Your task to perform on an android device: change keyboard looks Image 0: 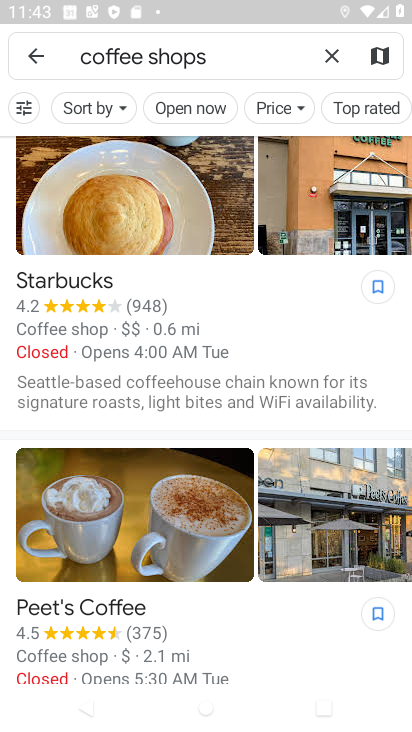
Step 0: press home button
Your task to perform on an android device: change keyboard looks Image 1: 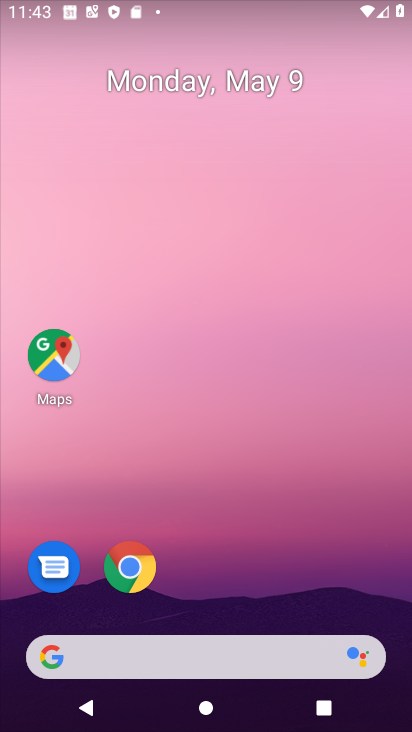
Step 1: drag from (180, 664) to (224, 80)
Your task to perform on an android device: change keyboard looks Image 2: 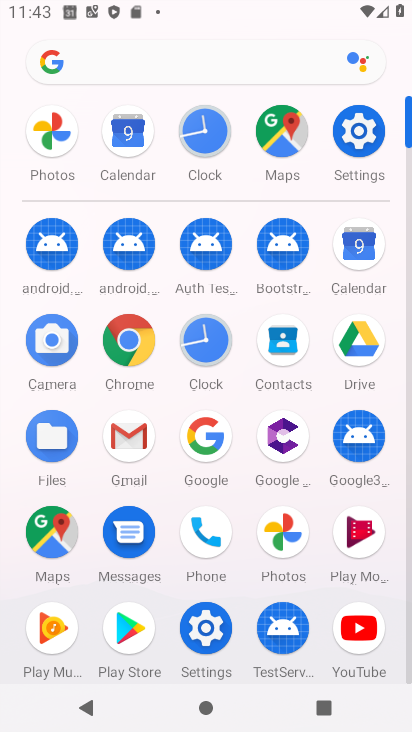
Step 2: click (370, 115)
Your task to perform on an android device: change keyboard looks Image 3: 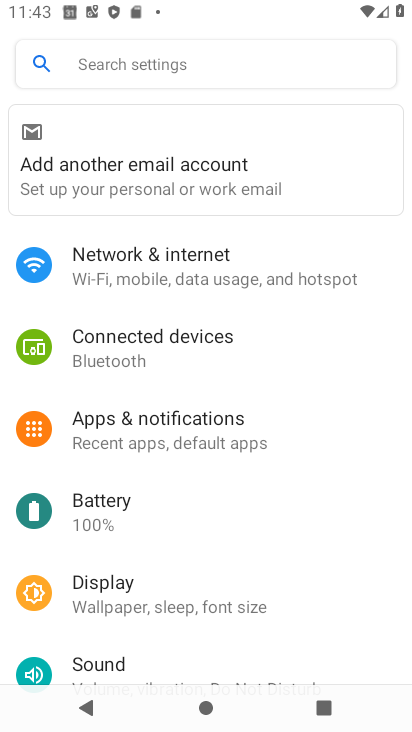
Step 3: drag from (216, 534) to (259, 116)
Your task to perform on an android device: change keyboard looks Image 4: 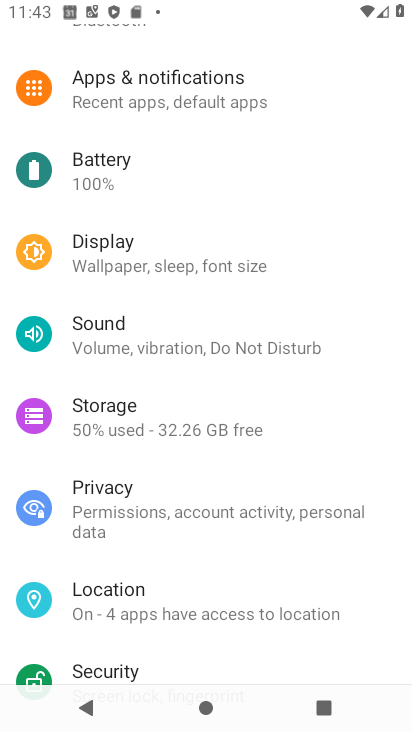
Step 4: drag from (246, 585) to (236, 32)
Your task to perform on an android device: change keyboard looks Image 5: 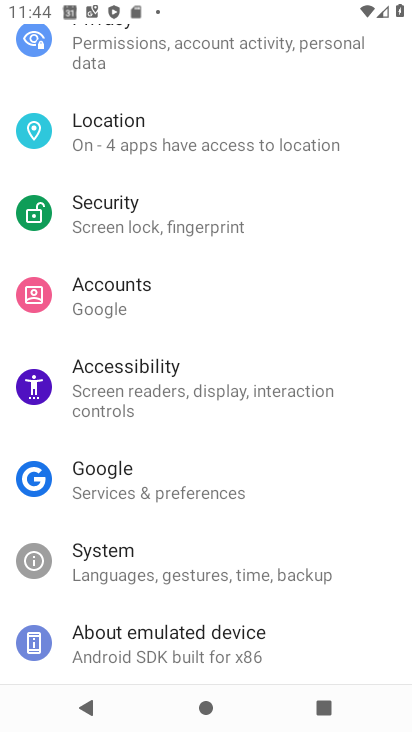
Step 5: drag from (198, 589) to (196, 263)
Your task to perform on an android device: change keyboard looks Image 6: 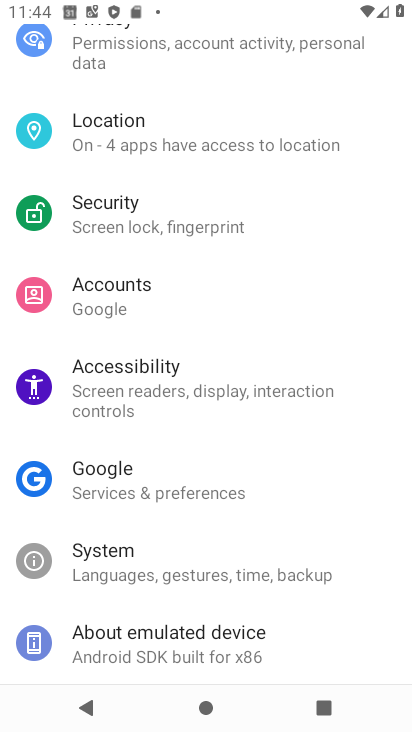
Step 6: click (146, 541)
Your task to perform on an android device: change keyboard looks Image 7: 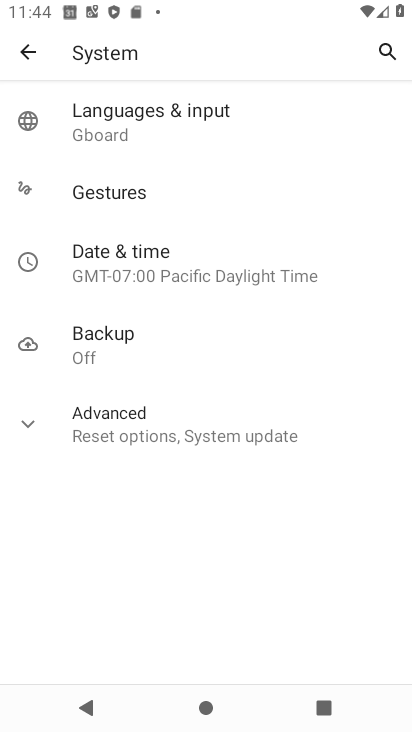
Step 7: click (113, 120)
Your task to perform on an android device: change keyboard looks Image 8: 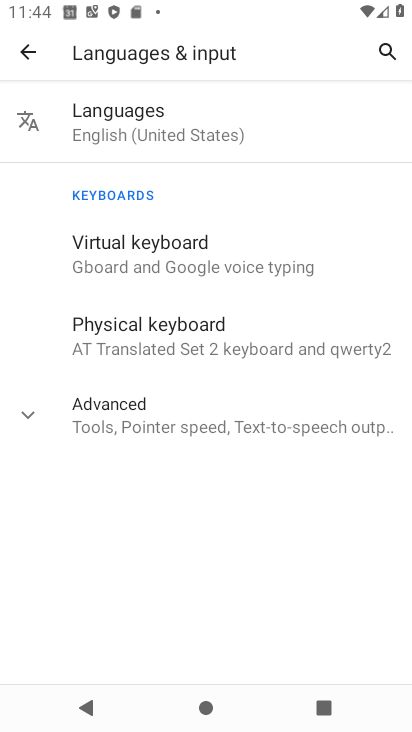
Step 8: click (142, 249)
Your task to perform on an android device: change keyboard looks Image 9: 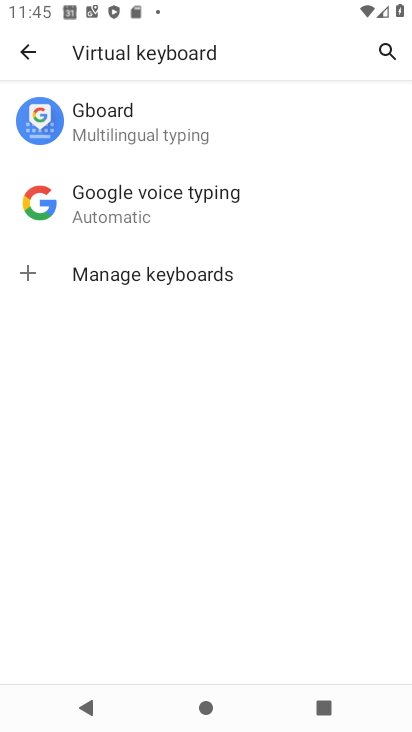
Step 9: click (118, 123)
Your task to perform on an android device: change keyboard looks Image 10: 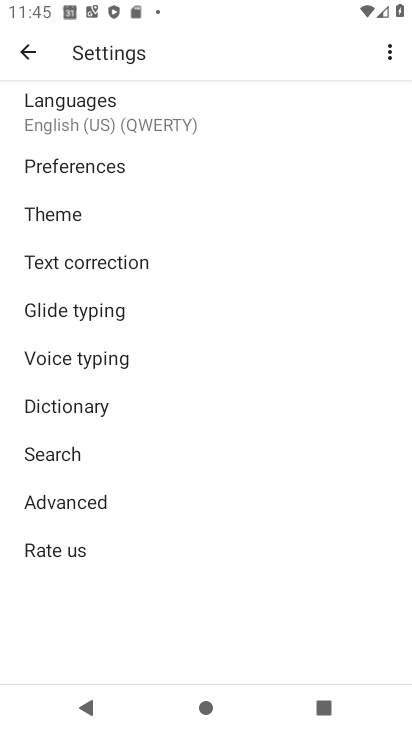
Step 10: click (120, 211)
Your task to perform on an android device: change keyboard looks Image 11: 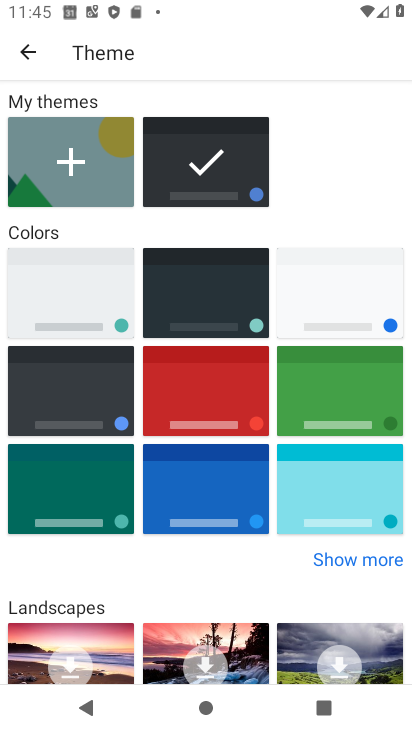
Step 11: click (166, 300)
Your task to perform on an android device: change keyboard looks Image 12: 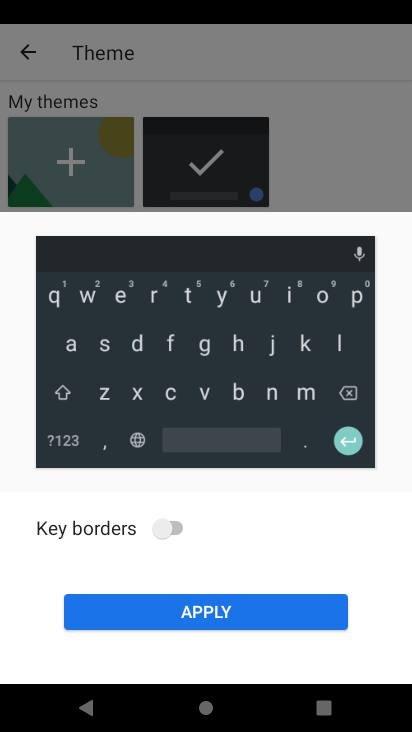
Step 12: click (173, 529)
Your task to perform on an android device: change keyboard looks Image 13: 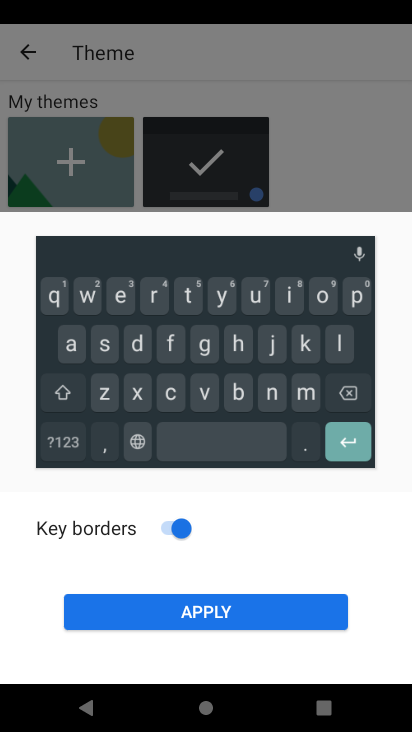
Step 13: click (215, 602)
Your task to perform on an android device: change keyboard looks Image 14: 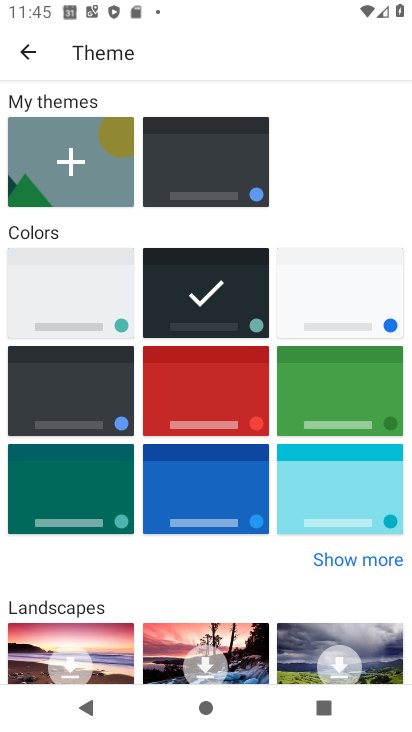
Step 14: task complete